Your task to perform on an android device: delete a single message in the gmail app Image 0: 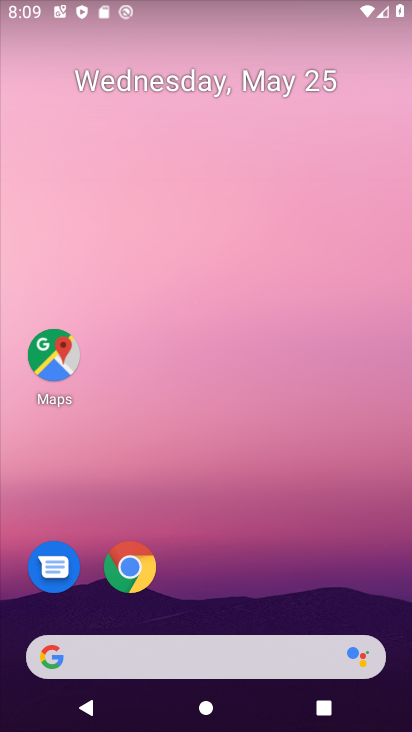
Step 0: drag from (289, 565) to (307, 84)
Your task to perform on an android device: delete a single message in the gmail app Image 1: 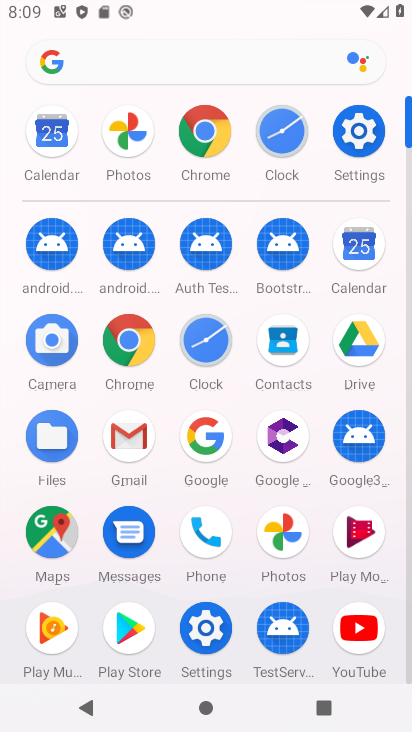
Step 1: click (145, 458)
Your task to perform on an android device: delete a single message in the gmail app Image 2: 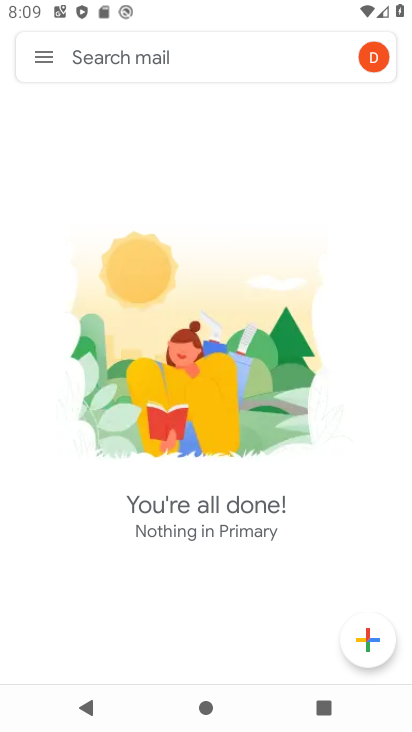
Step 2: click (45, 69)
Your task to perform on an android device: delete a single message in the gmail app Image 3: 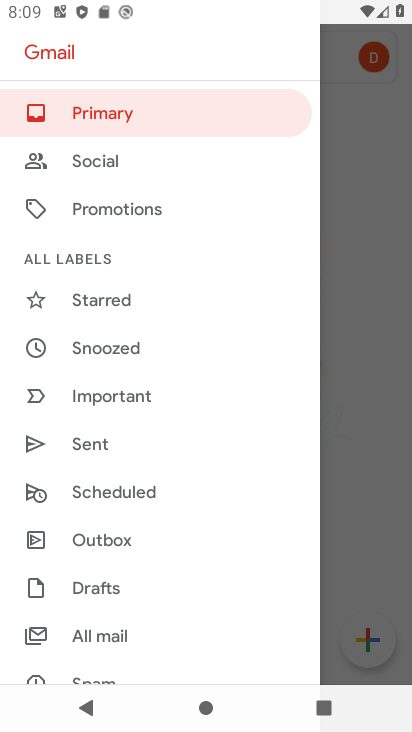
Step 3: click (108, 619)
Your task to perform on an android device: delete a single message in the gmail app Image 4: 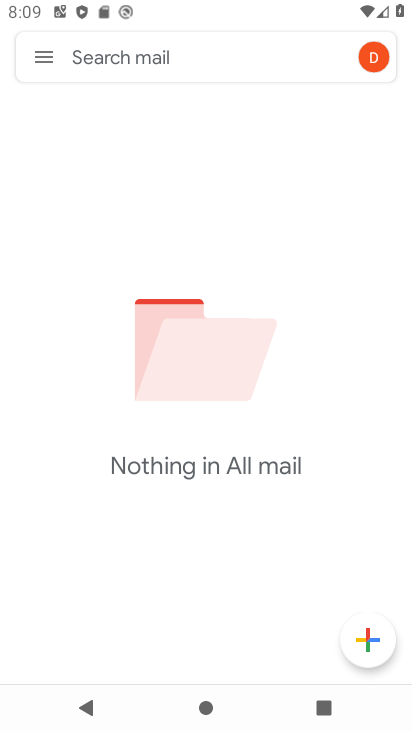
Step 4: task complete